Your task to perform on an android device: Go to display settings Image 0: 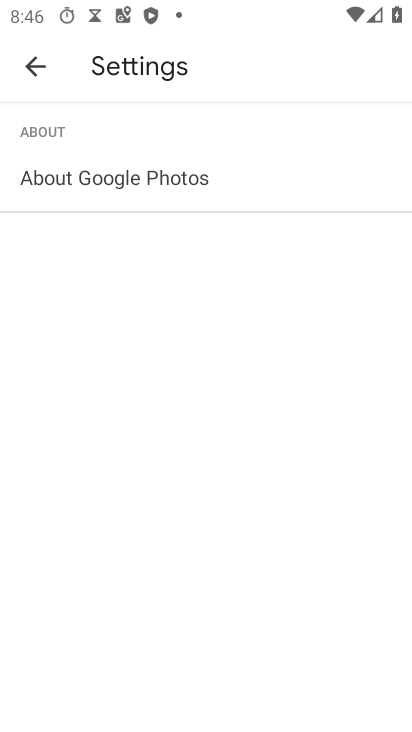
Step 0: press home button
Your task to perform on an android device: Go to display settings Image 1: 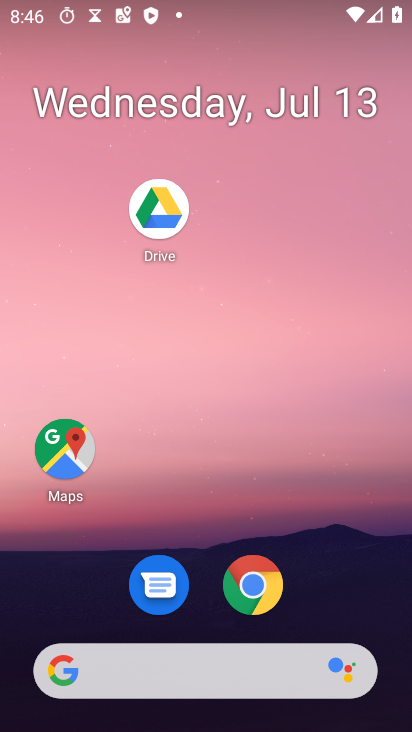
Step 1: drag from (233, 691) to (285, 114)
Your task to perform on an android device: Go to display settings Image 2: 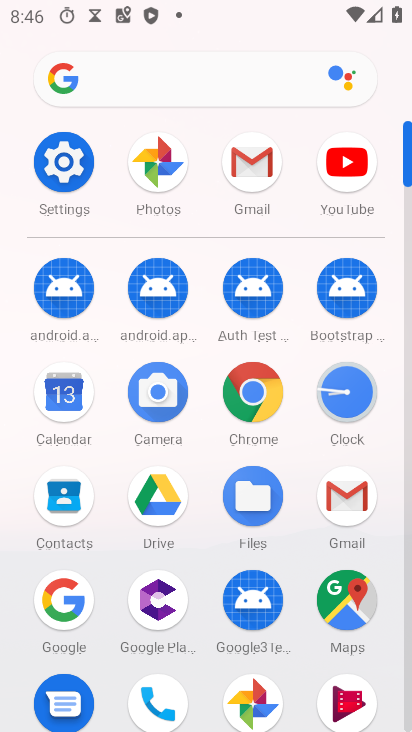
Step 2: click (53, 158)
Your task to perform on an android device: Go to display settings Image 3: 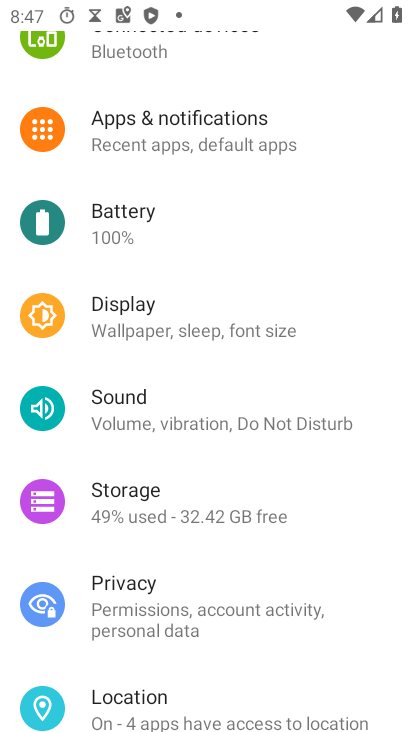
Step 3: click (167, 329)
Your task to perform on an android device: Go to display settings Image 4: 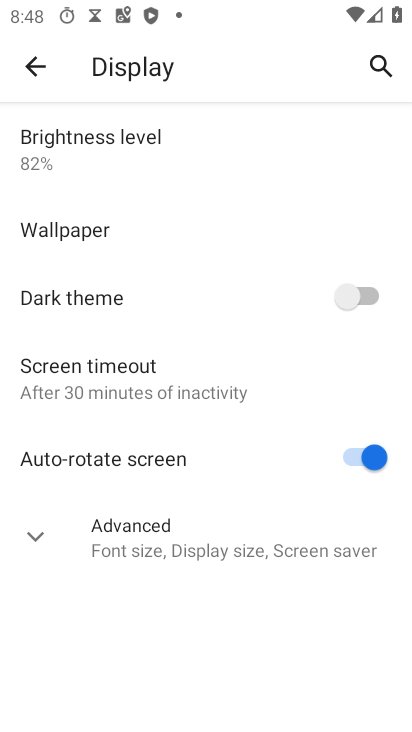
Step 4: task complete